Your task to perform on an android device: Go to display settings Image 0: 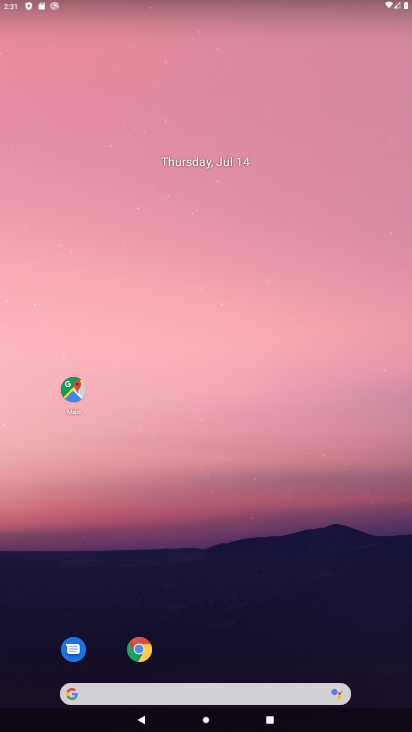
Step 0: drag from (215, 630) to (256, 151)
Your task to perform on an android device: Go to display settings Image 1: 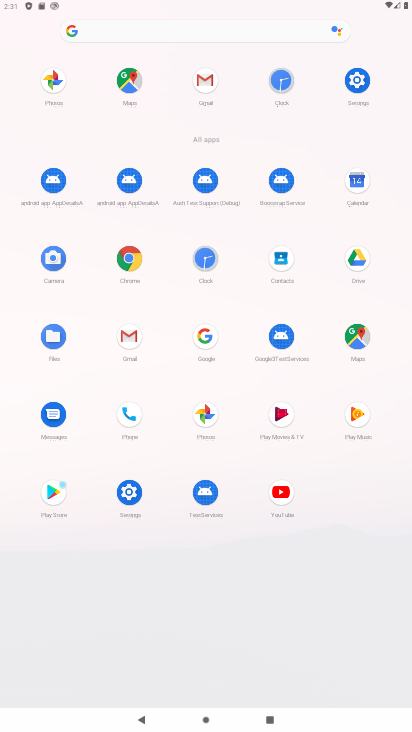
Step 1: click (364, 74)
Your task to perform on an android device: Go to display settings Image 2: 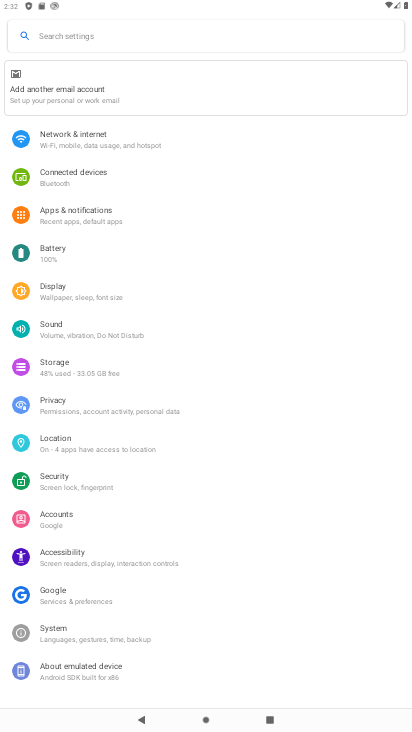
Step 2: click (113, 296)
Your task to perform on an android device: Go to display settings Image 3: 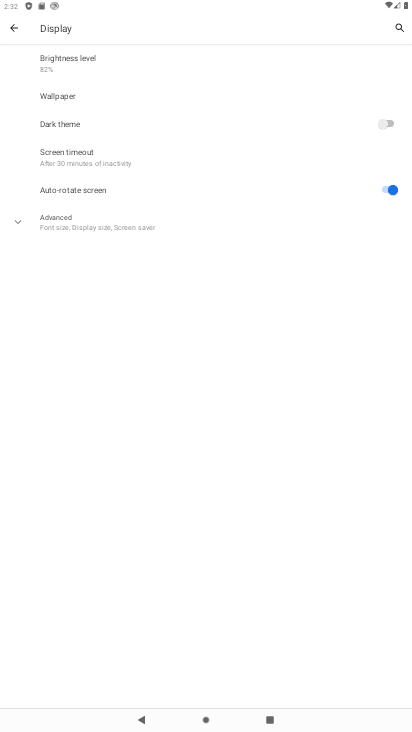
Step 3: task complete